Your task to perform on an android device: turn off javascript in the chrome app Image 0: 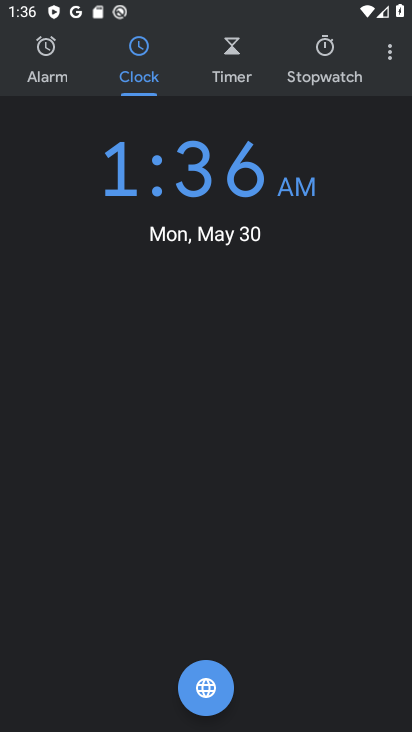
Step 0: press home button
Your task to perform on an android device: turn off javascript in the chrome app Image 1: 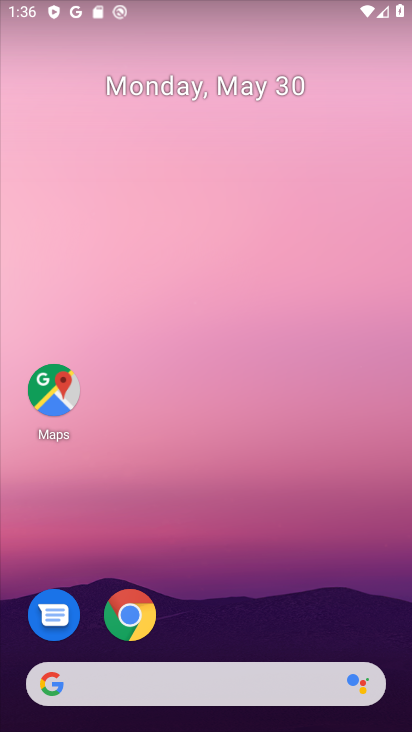
Step 1: click (136, 621)
Your task to perform on an android device: turn off javascript in the chrome app Image 2: 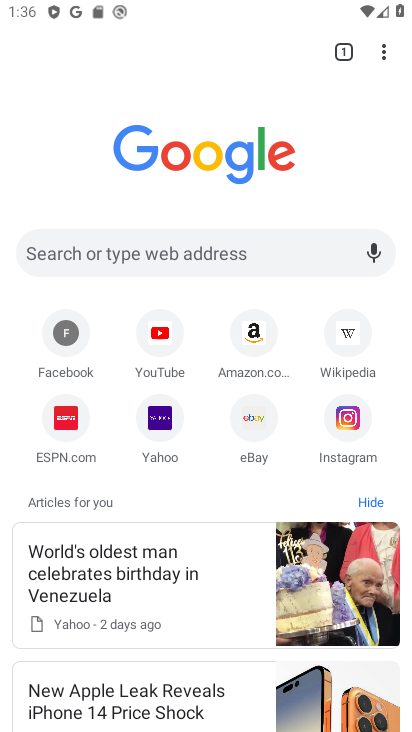
Step 2: click (392, 48)
Your task to perform on an android device: turn off javascript in the chrome app Image 3: 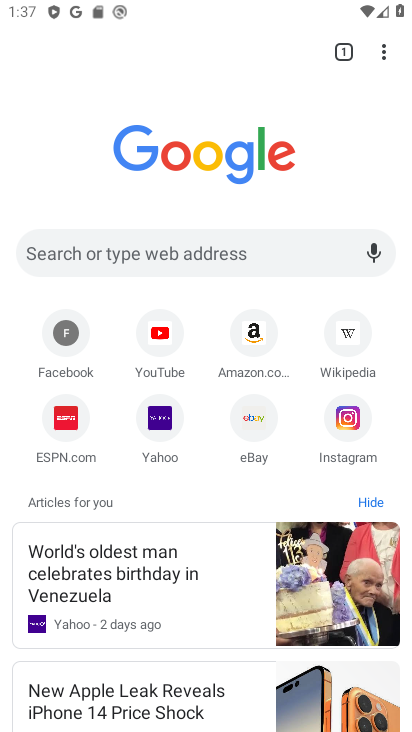
Step 3: click (385, 50)
Your task to perform on an android device: turn off javascript in the chrome app Image 4: 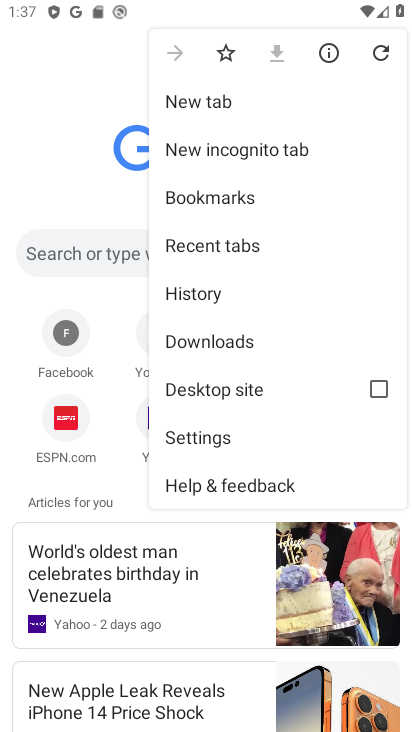
Step 4: click (210, 425)
Your task to perform on an android device: turn off javascript in the chrome app Image 5: 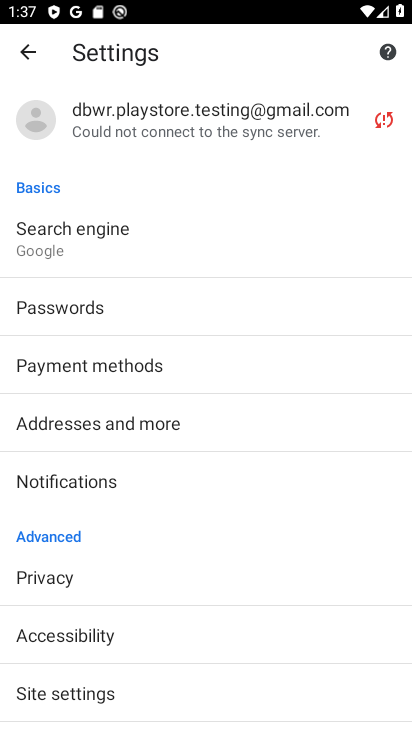
Step 5: click (147, 692)
Your task to perform on an android device: turn off javascript in the chrome app Image 6: 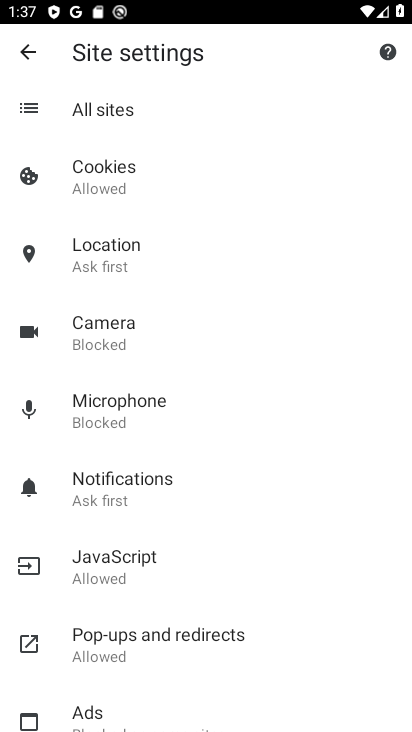
Step 6: click (199, 563)
Your task to perform on an android device: turn off javascript in the chrome app Image 7: 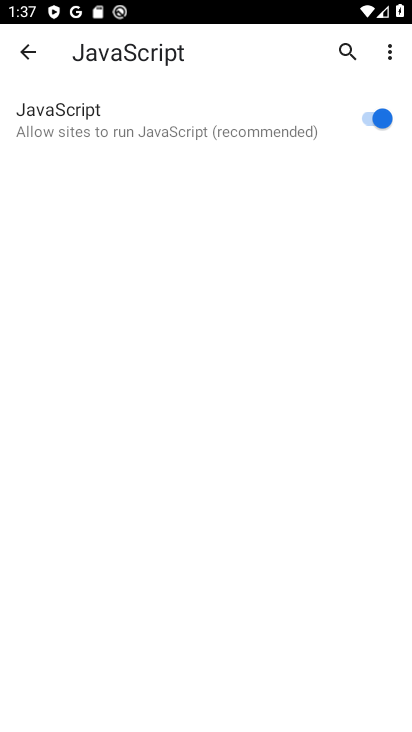
Step 7: click (362, 106)
Your task to perform on an android device: turn off javascript in the chrome app Image 8: 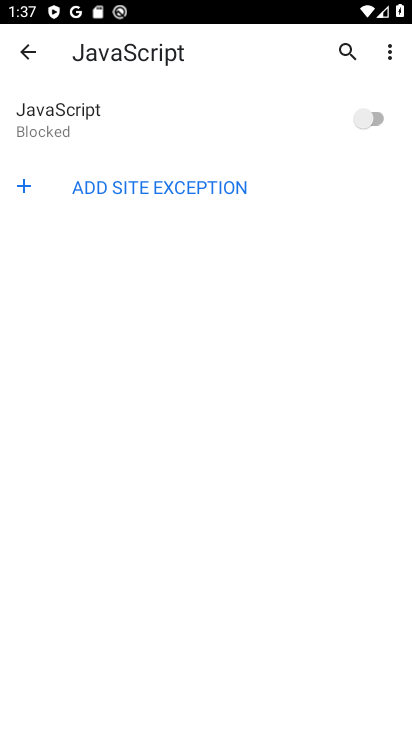
Step 8: task complete